Your task to perform on an android device: Go to Android settings Image 0: 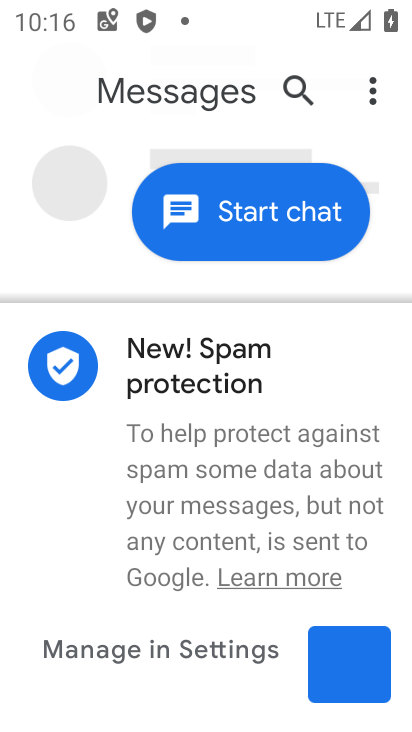
Step 0: press home button
Your task to perform on an android device: Go to Android settings Image 1: 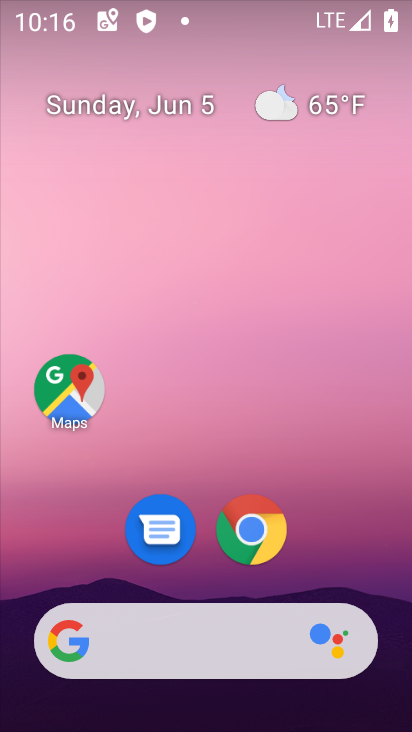
Step 1: drag from (282, 714) to (362, 15)
Your task to perform on an android device: Go to Android settings Image 2: 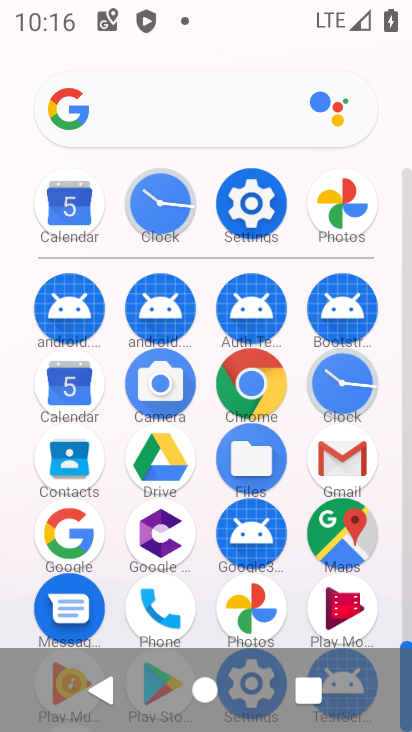
Step 2: click (258, 211)
Your task to perform on an android device: Go to Android settings Image 3: 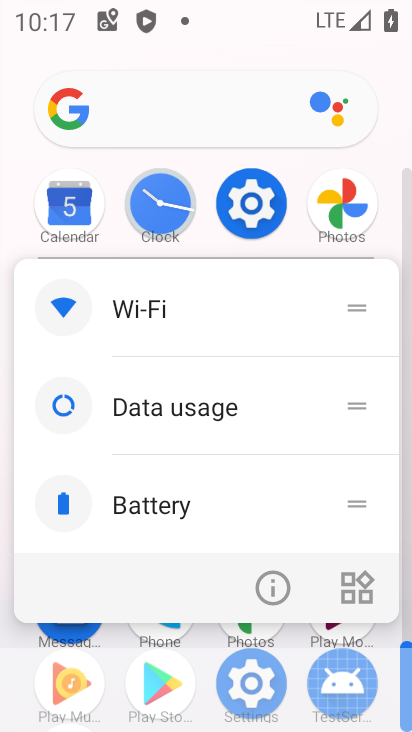
Step 3: click (250, 205)
Your task to perform on an android device: Go to Android settings Image 4: 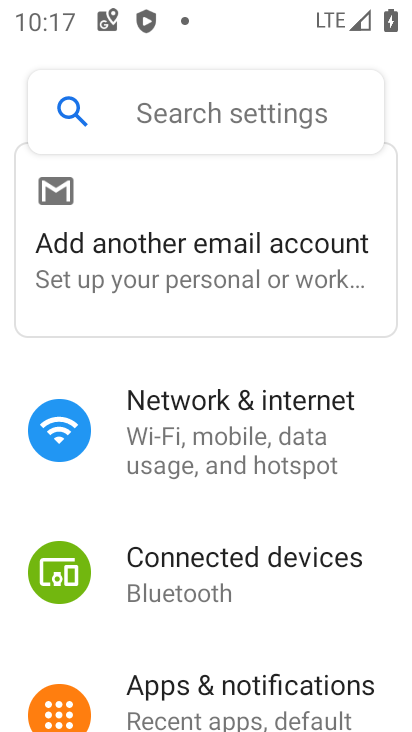
Step 4: drag from (295, 606) to (265, 19)
Your task to perform on an android device: Go to Android settings Image 5: 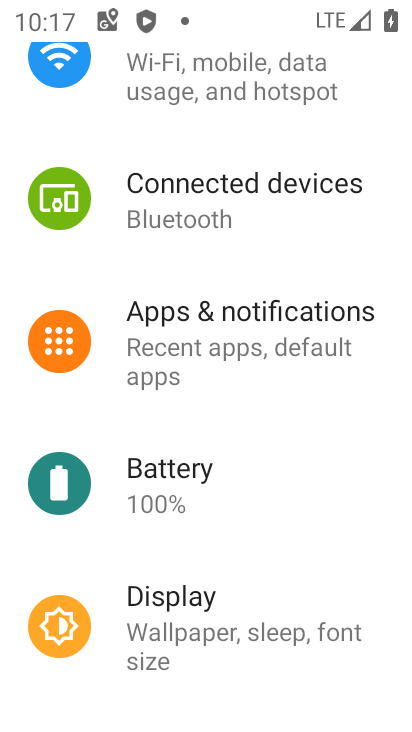
Step 5: drag from (223, 692) to (278, 94)
Your task to perform on an android device: Go to Android settings Image 6: 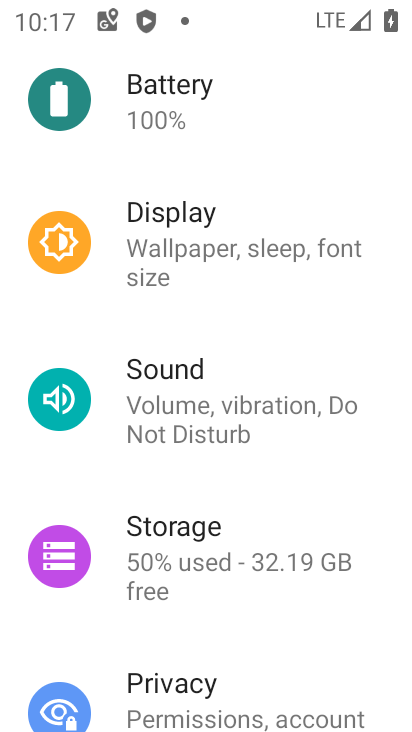
Step 6: drag from (311, 626) to (391, 140)
Your task to perform on an android device: Go to Android settings Image 7: 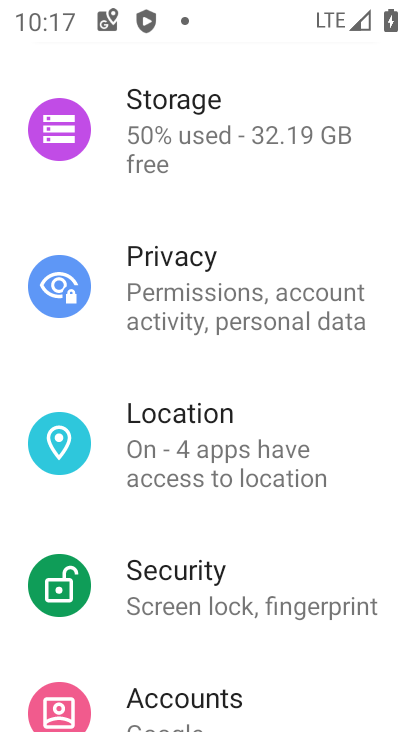
Step 7: drag from (301, 653) to (331, 276)
Your task to perform on an android device: Go to Android settings Image 8: 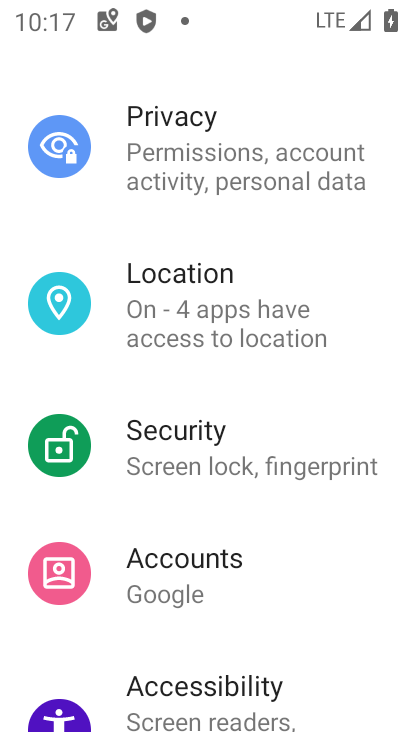
Step 8: drag from (309, 692) to (375, 37)
Your task to perform on an android device: Go to Android settings Image 9: 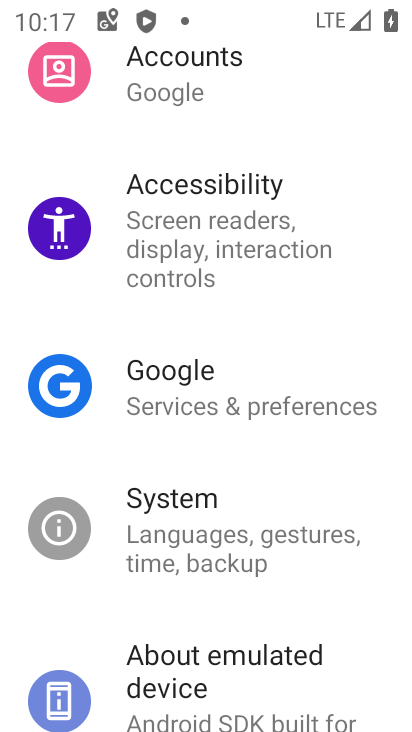
Step 9: drag from (277, 508) to (390, 74)
Your task to perform on an android device: Go to Android settings Image 10: 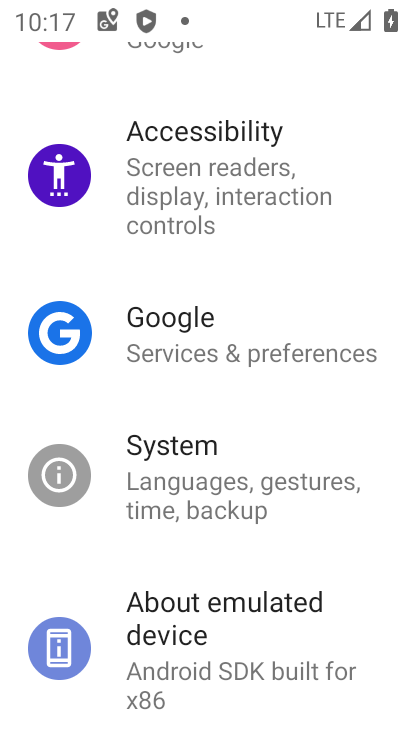
Step 10: click (275, 663)
Your task to perform on an android device: Go to Android settings Image 11: 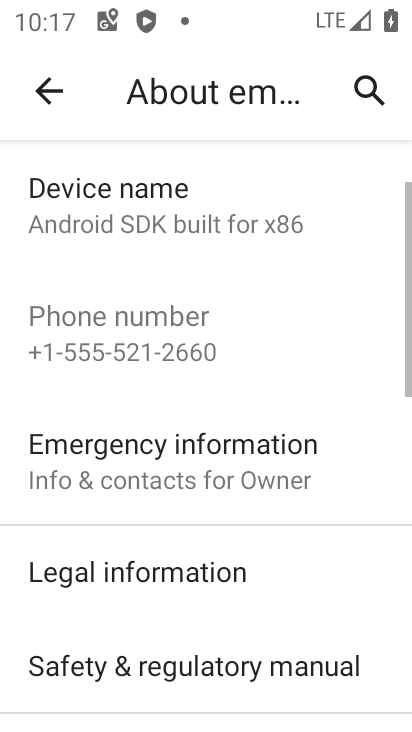
Step 11: task complete